Your task to perform on an android device: Turn off the flashlight Image 0: 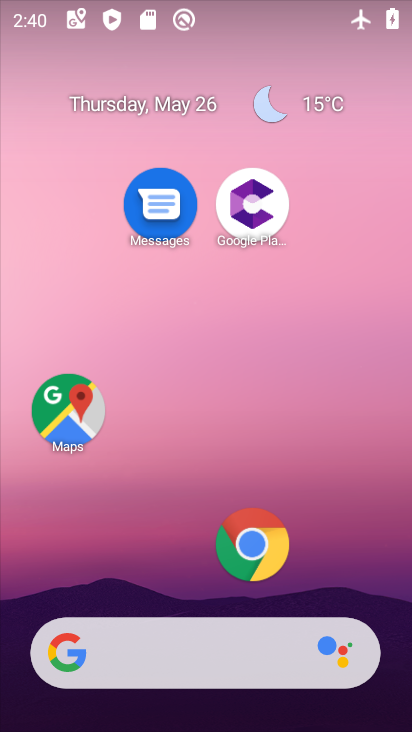
Step 0: drag from (154, 595) to (263, 63)
Your task to perform on an android device: Turn off the flashlight Image 1: 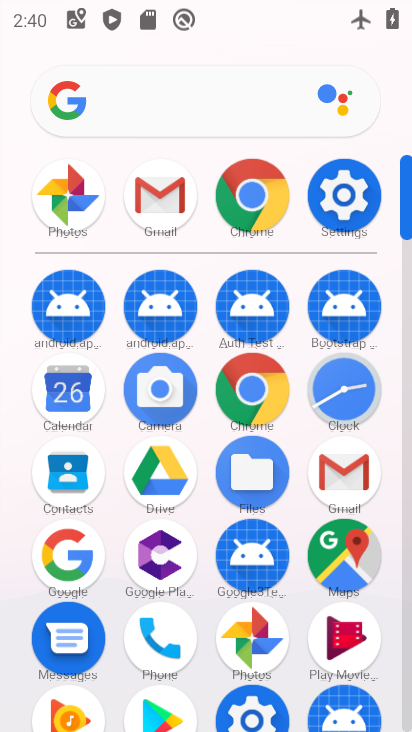
Step 1: click (363, 190)
Your task to perform on an android device: Turn off the flashlight Image 2: 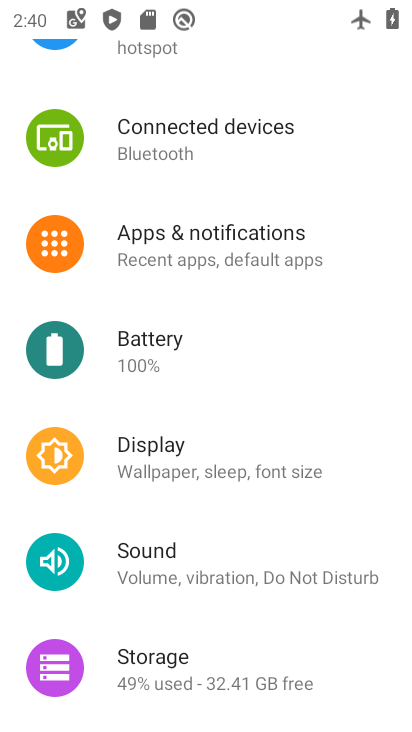
Step 2: task complete